Your task to perform on an android device: set the timer Image 0: 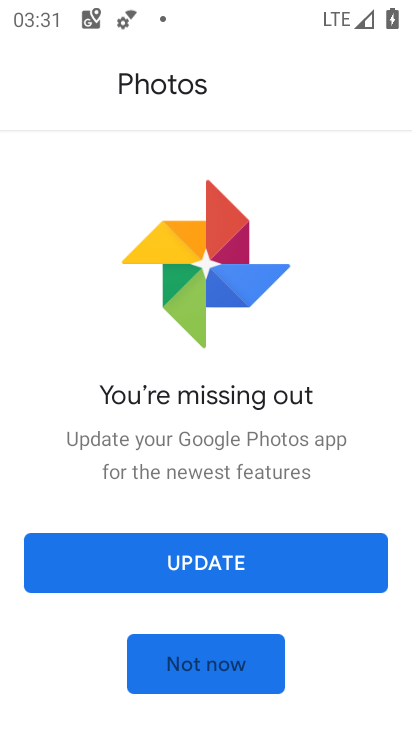
Step 0: press home button
Your task to perform on an android device: set the timer Image 1: 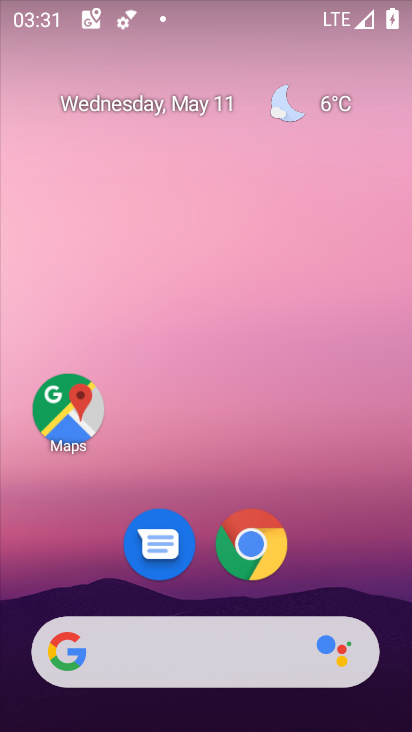
Step 1: drag from (318, 586) to (298, 77)
Your task to perform on an android device: set the timer Image 2: 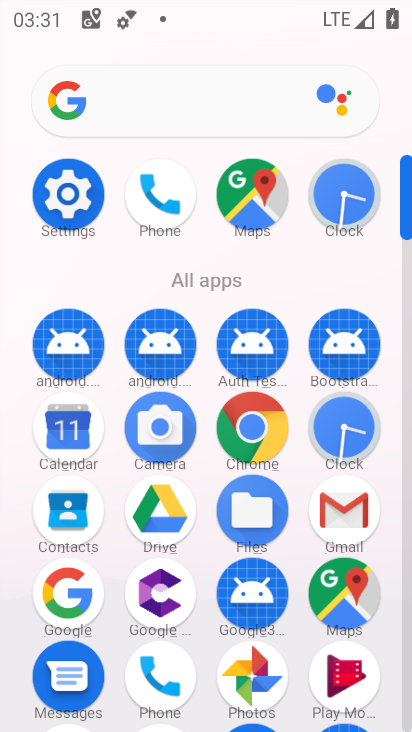
Step 2: click (342, 415)
Your task to perform on an android device: set the timer Image 3: 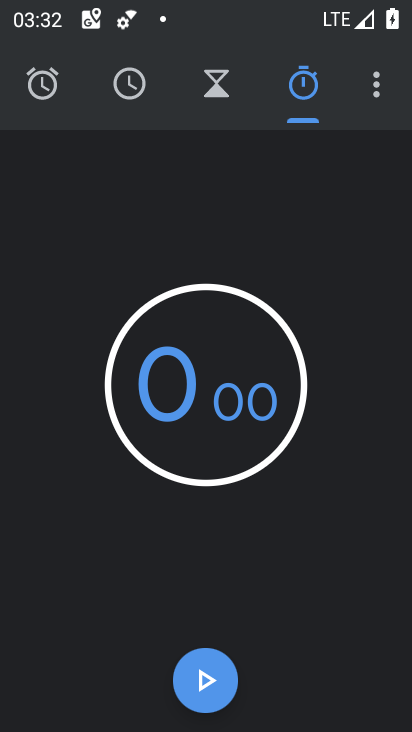
Step 3: click (213, 85)
Your task to perform on an android device: set the timer Image 4: 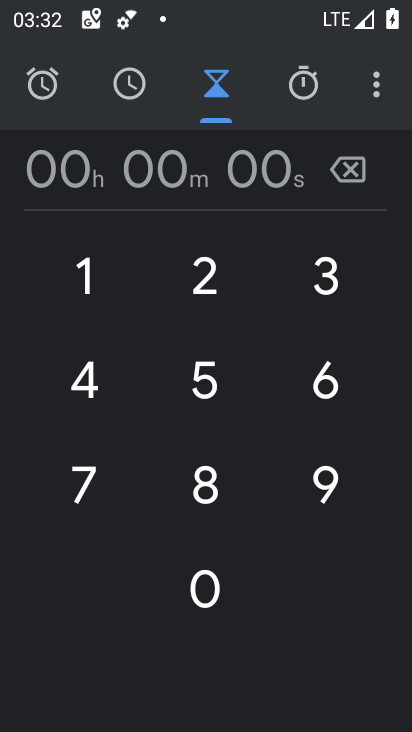
Step 4: click (109, 271)
Your task to perform on an android device: set the timer Image 5: 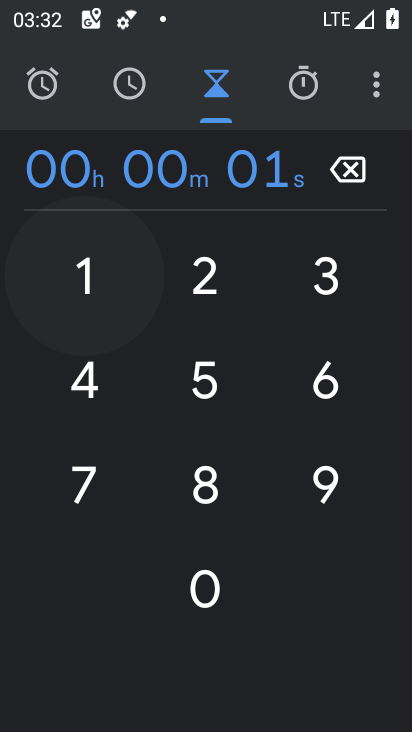
Step 5: click (219, 274)
Your task to perform on an android device: set the timer Image 6: 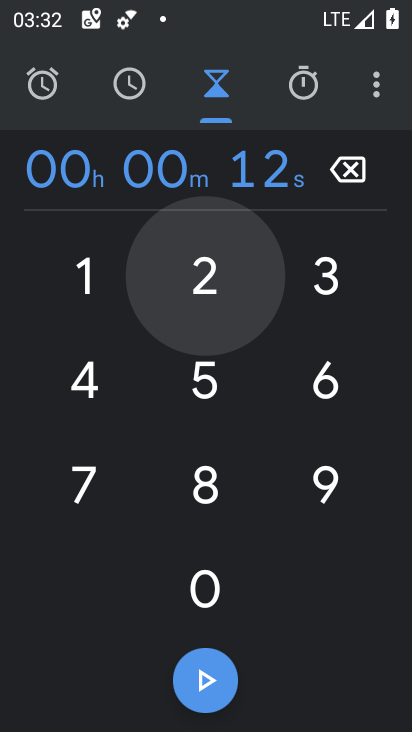
Step 6: click (329, 283)
Your task to perform on an android device: set the timer Image 7: 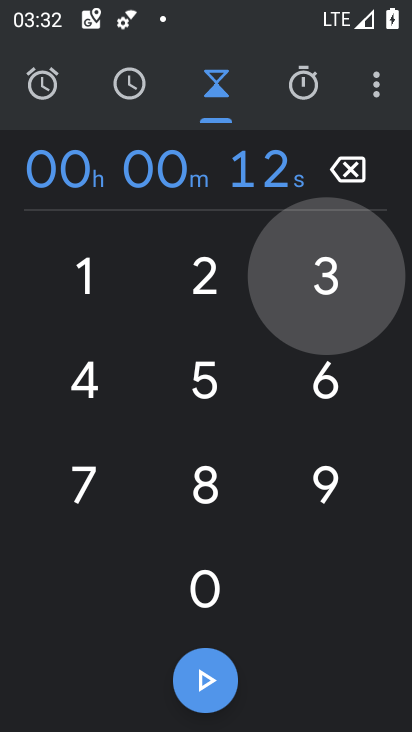
Step 7: click (297, 329)
Your task to perform on an android device: set the timer Image 8: 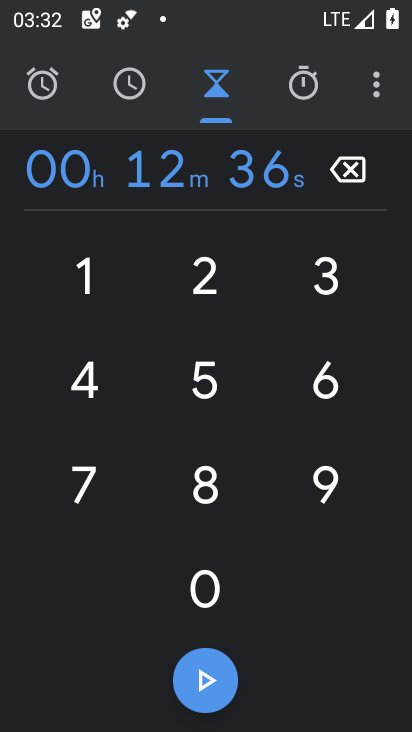
Step 8: click (186, 337)
Your task to perform on an android device: set the timer Image 9: 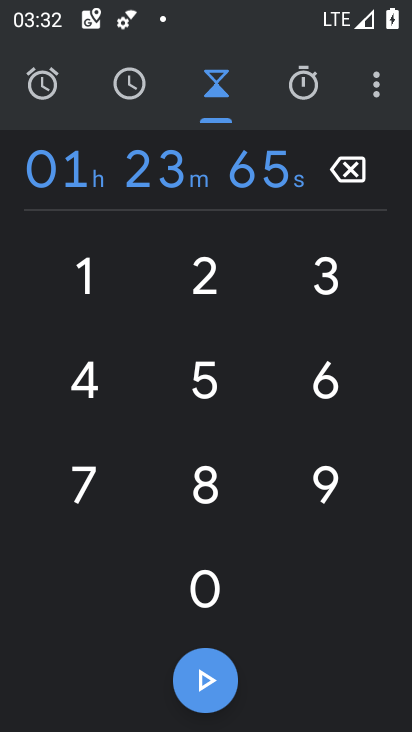
Step 9: click (101, 367)
Your task to perform on an android device: set the timer Image 10: 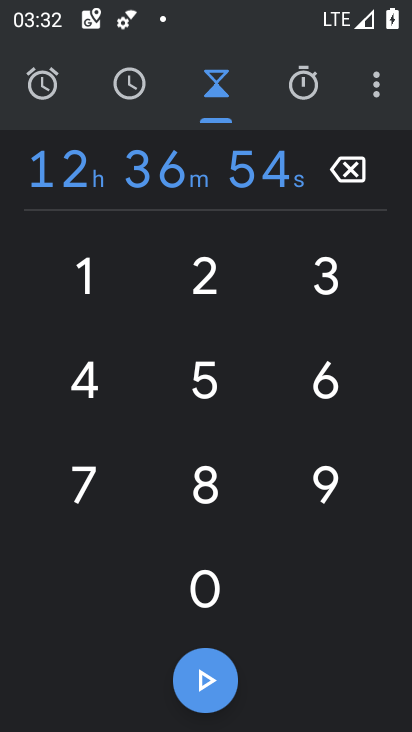
Step 10: click (199, 690)
Your task to perform on an android device: set the timer Image 11: 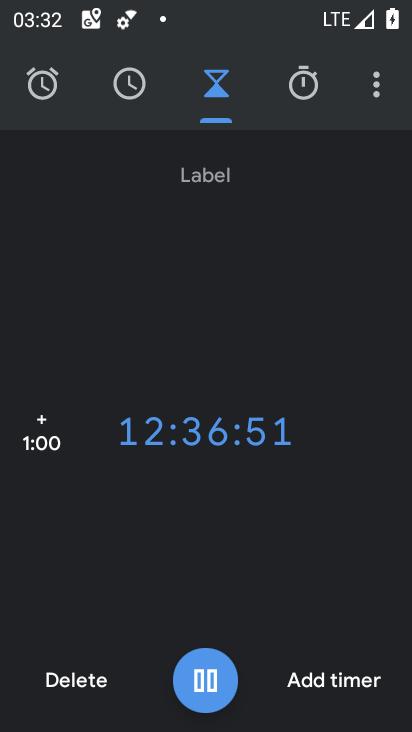
Step 11: task complete